Your task to perform on an android device: Open accessibility settings Image 0: 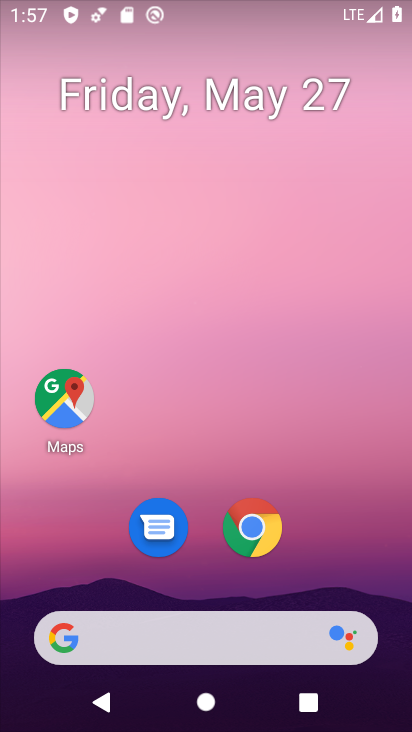
Step 0: drag from (263, 705) to (263, 239)
Your task to perform on an android device: Open accessibility settings Image 1: 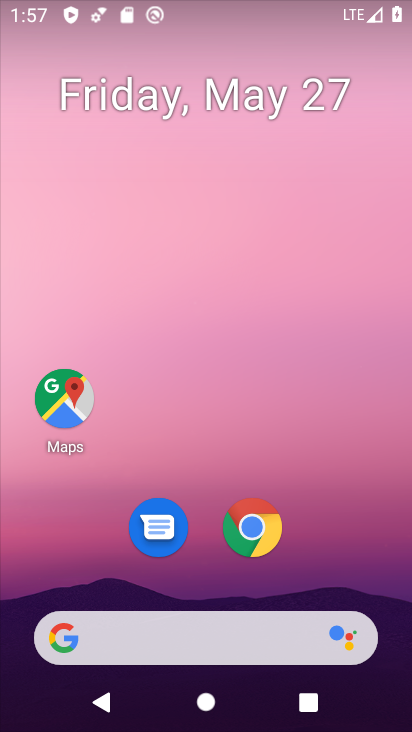
Step 1: drag from (255, 689) to (344, 48)
Your task to perform on an android device: Open accessibility settings Image 2: 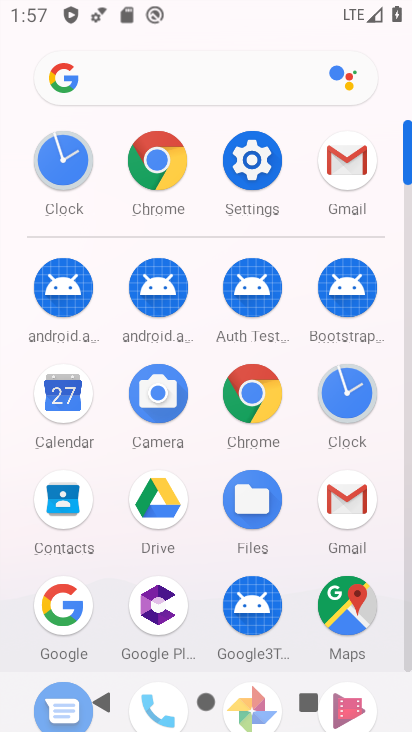
Step 2: click (250, 158)
Your task to perform on an android device: Open accessibility settings Image 3: 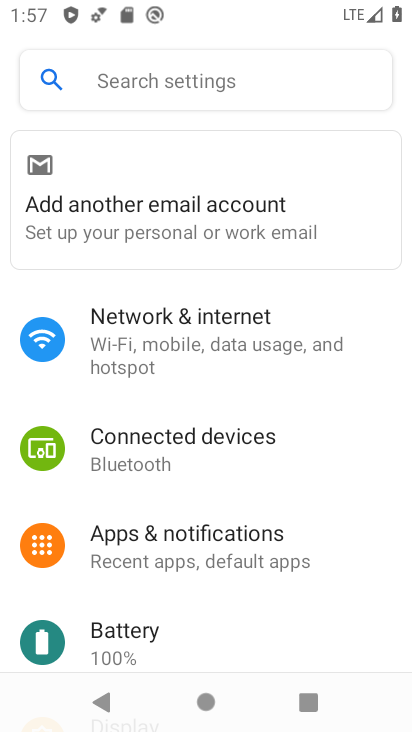
Step 3: drag from (282, 604) to (364, 87)
Your task to perform on an android device: Open accessibility settings Image 4: 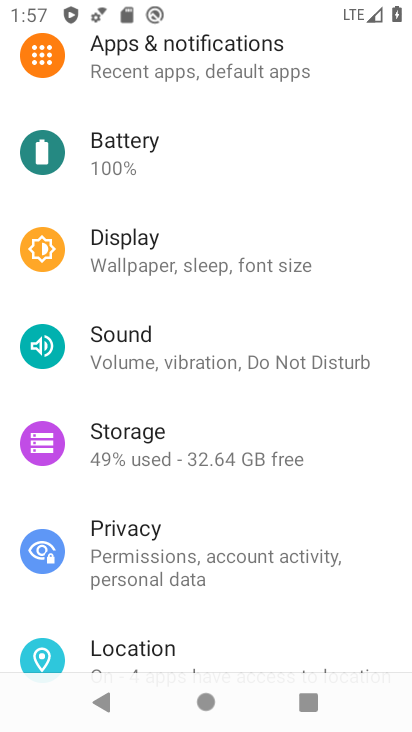
Step 4: drag from (209, 525) to (314, 1)
Your task to perform on an android device: Open accessibility settings Image 5: 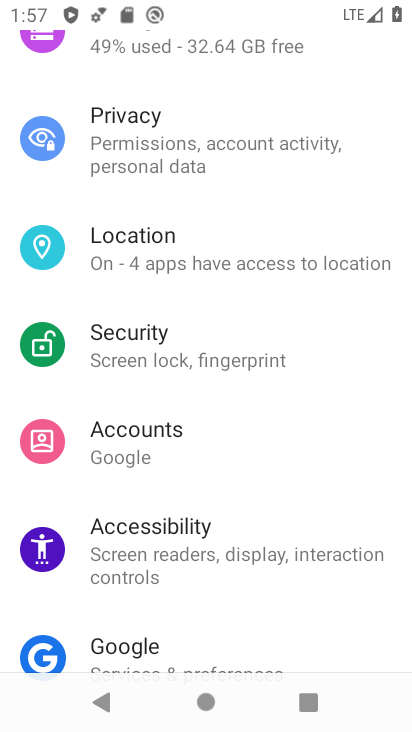
Step 5: drag from (228, 570) to (318, 31)
Your task to perform on an android device: Open accessibility settings Image 6: 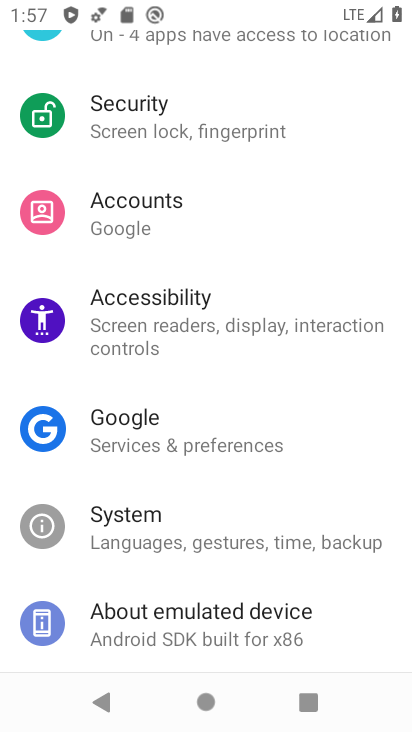
Step 6: click (227, 322)
Your task to perform on an android device: Open accessibility settings Image 7: 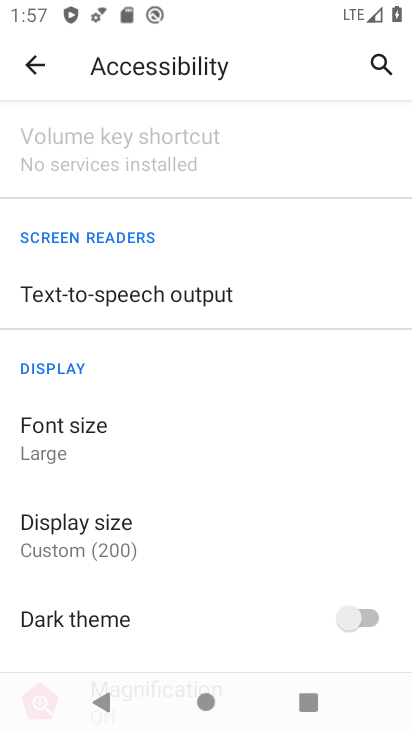
Step 7: task complete